Your task to perform on an android device: turn vacation reply on in the gmail app Image 0: 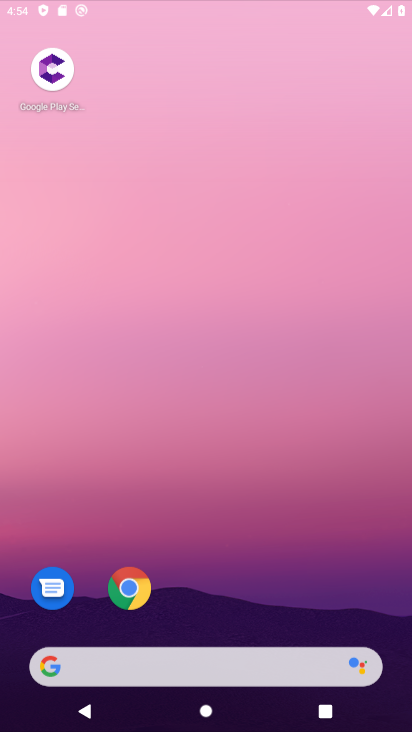
Step 0: drag from (281, 517) to (214, 65)
Your task to perform on an android device: turn vacation reply on in the gmail app Image 1: 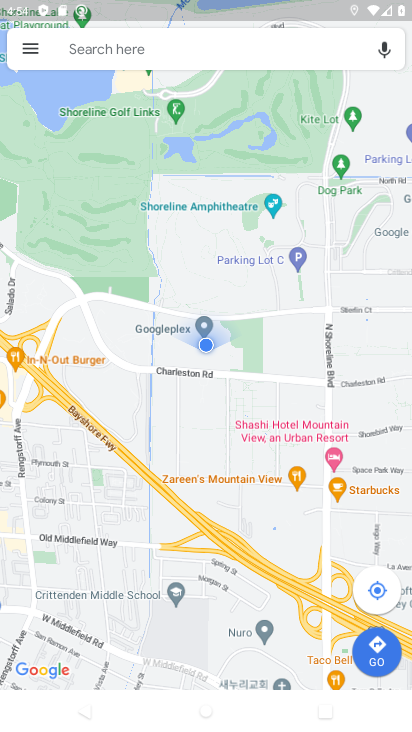
Step 1: press home button
Your task to perform on an android device: turn vacation reply on in the gmail app Image 2: 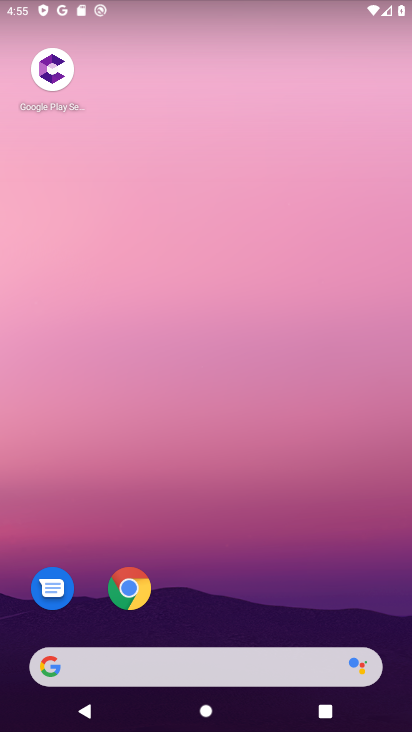
Step 2: drag from (256, 596) to (274, 212)
Your task to perform on an android device: turn vacation reply on in the gmail app Image 3: 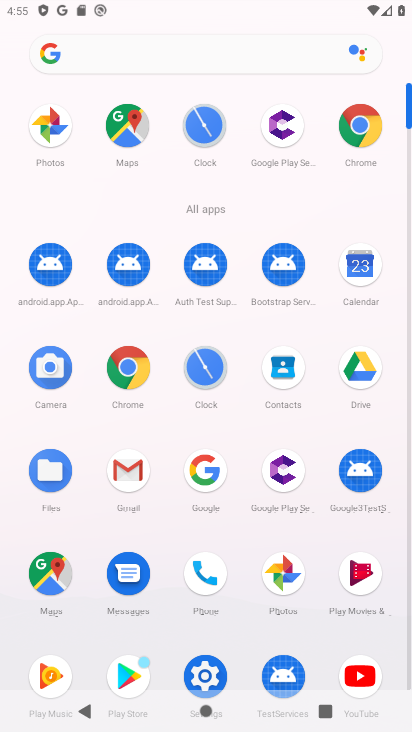
Step 3: click (125, 482)
Your task to perform on an android device: turn vacation reply on in the gmail app Image 4: 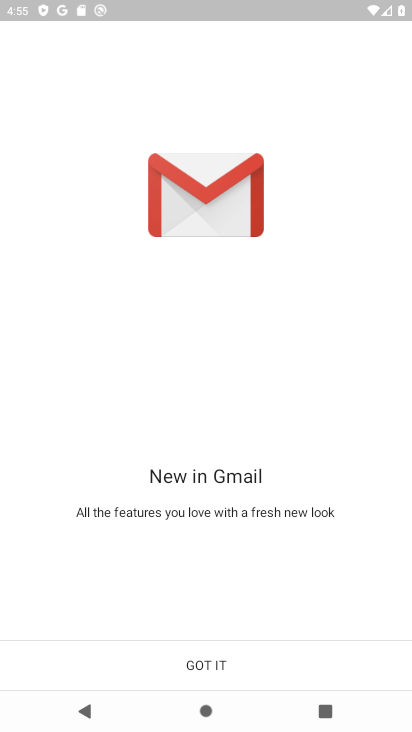
Step 4: click (209, 671)
Your task to perform on an android device: turn vacation reply on in the gmail app Image 5: 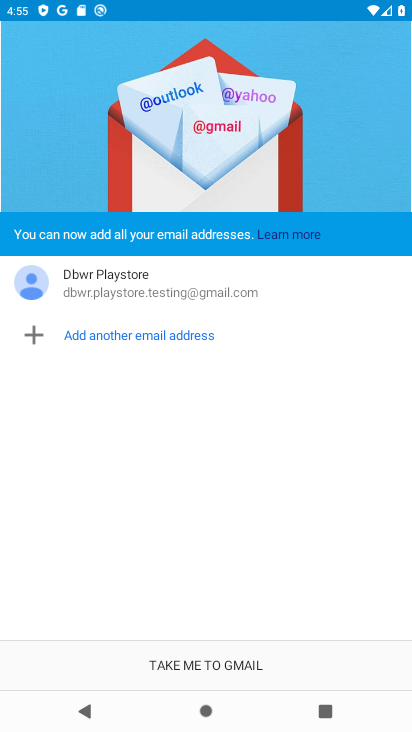
Step 5: click (209, 671)
Your task to perform on an android device: turn vacation reply on in the gmail app Image 6: 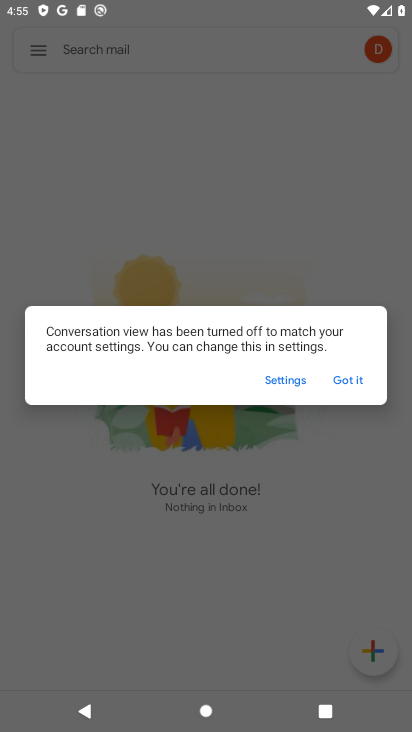
Step 6: click (354, 385)
Your task to perform on an android device: turn vacation reply on in the gmail app Image 7: 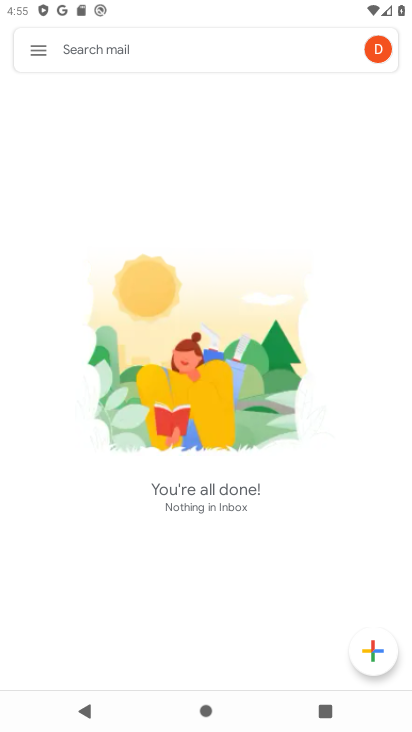
Step 7: click (34, 50)
Your task to perform on an android device: turn vacation reply on in the gmail app Image 8: 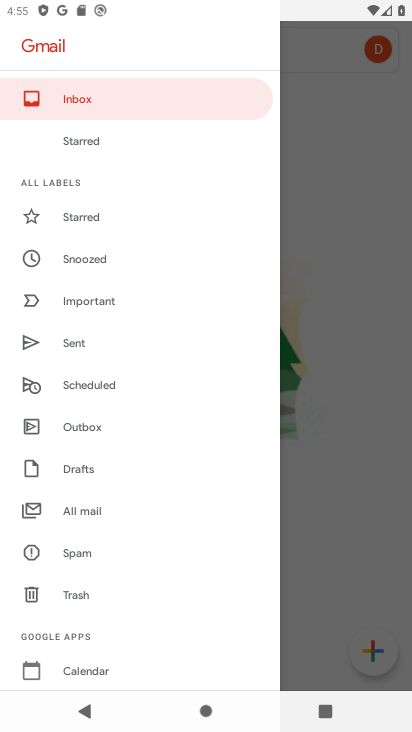
Step 8: drag from (117, 683) to (148, 190)
Your task to perform on an android device: turn vacation reply on in the gmail app Image 9: 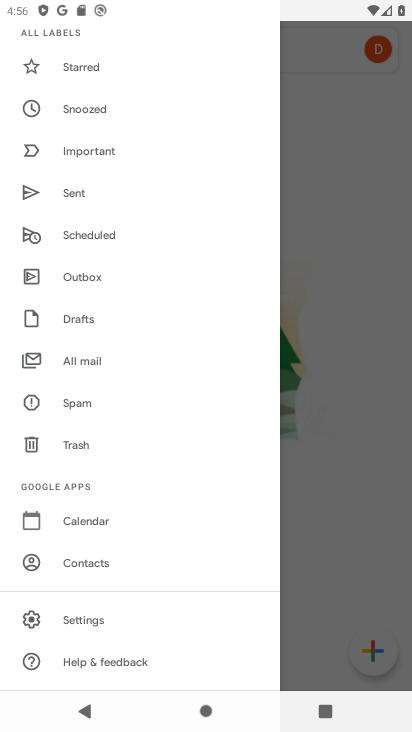
Step 9: click (53, 618)
Your task to perform on an android device: turn vacation reply on in the gmail app Image 10: 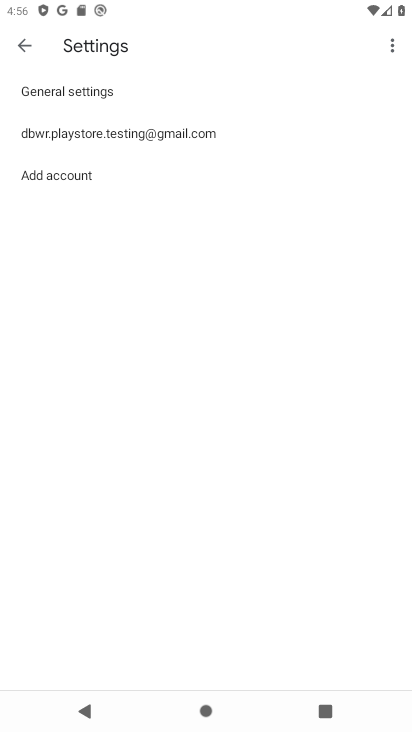
Step 10: click (136, 133)
Your task to perform on an android device: turn vacation reply on in the gmail app Image 11: 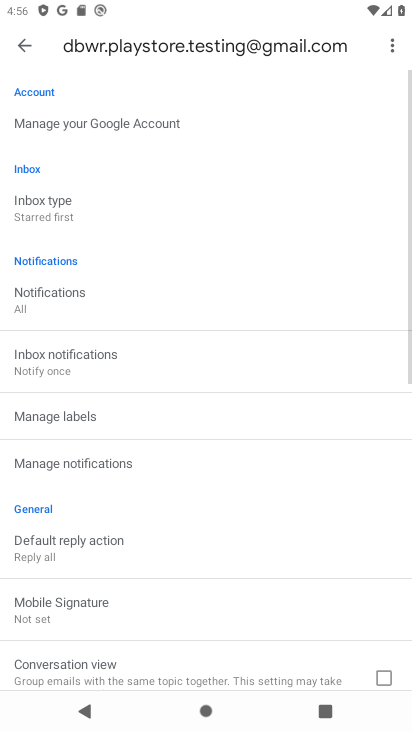
Step 11: drag from (160, 636) to (142, 358)
Your task to perform on an android device: turn vacation reply on in the gmail app Image 12: 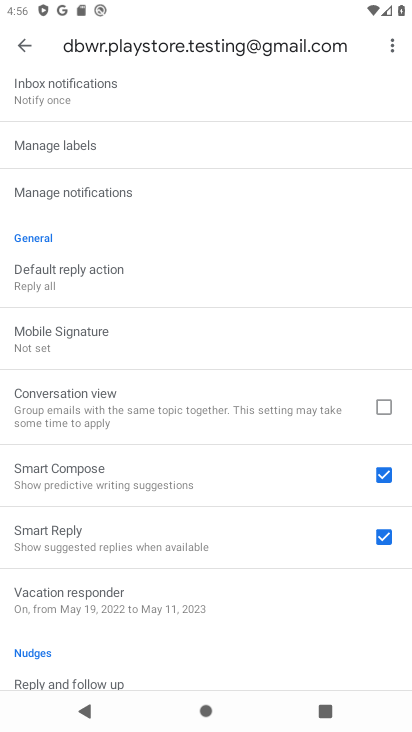
Step 12: click (214, 617)
Your task to perform on an android device: turn vacation reply on in the gmail app Image 13: 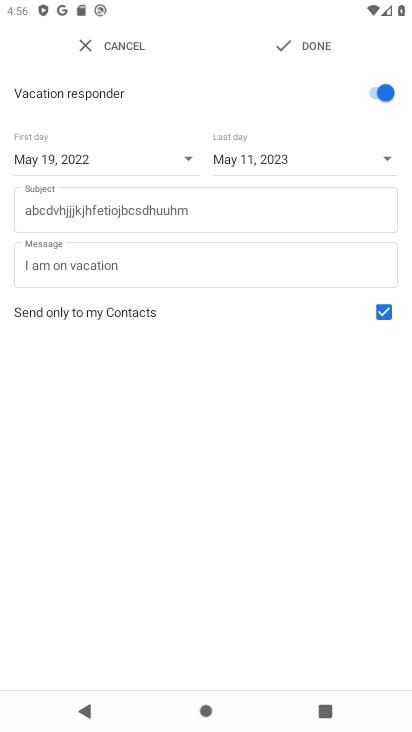
Step 13: click (331, 39)
Your task to perform on an android device: turn vacation reply on in the gmail app Image 14: 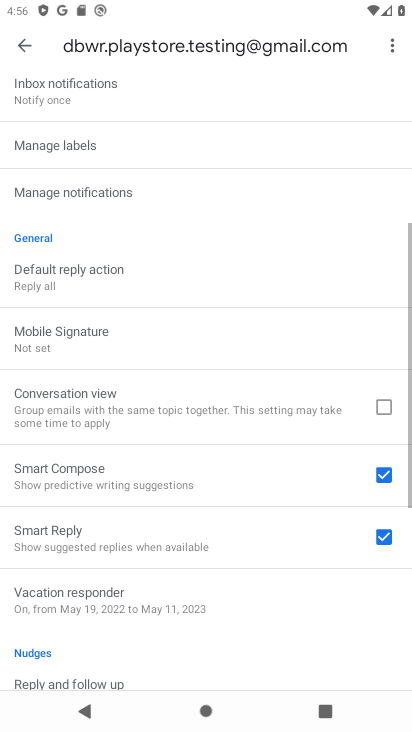
Step 14: task complete